Your task to perform on an android device: Go to privacy settings Image 0: 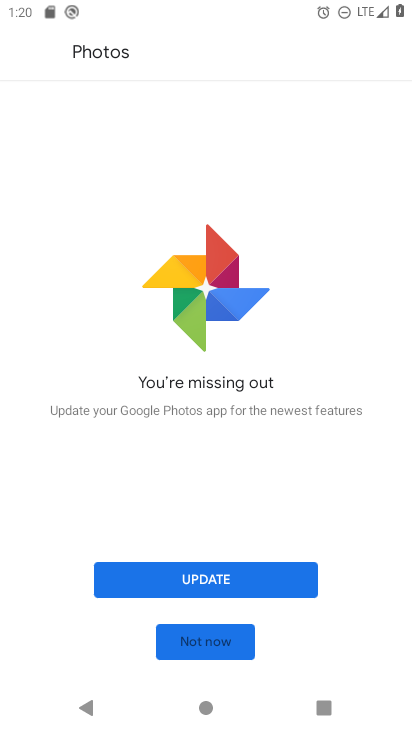
Step 0: press home button
Your task to perform on an android device: Go to privacy settings Image 1: 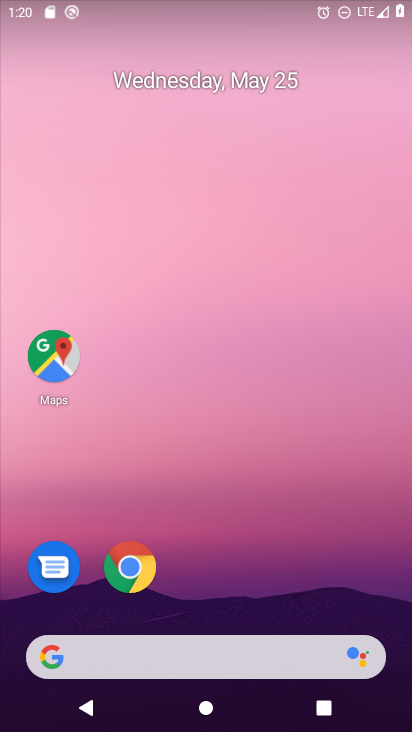
Step 1: click (130, 559)
Your task to perform on an android device: Go to privacy settings Image 2: 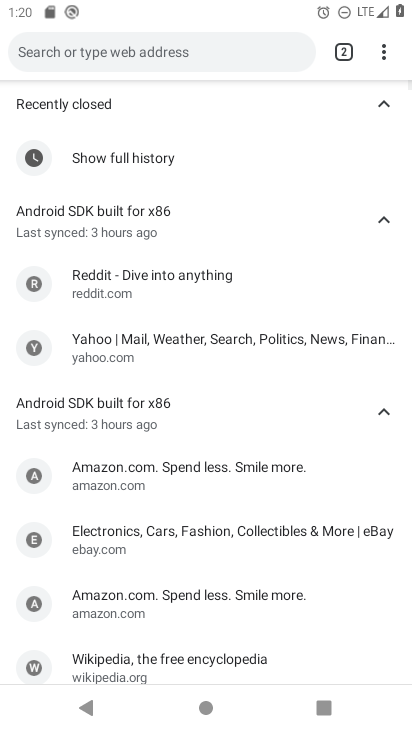
Step 2: click (380, 45)
Your task to perform on an android device: Go to privacy settings Image 3: 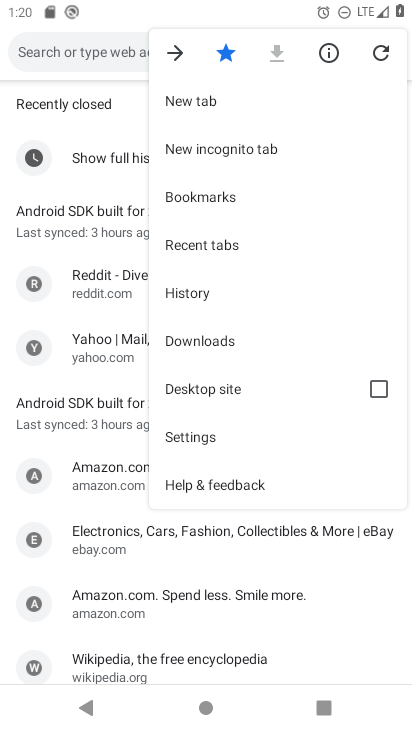
Step 3: click (192, 432)
Your task to perform on an android device: Go to privacy settings Image 4: 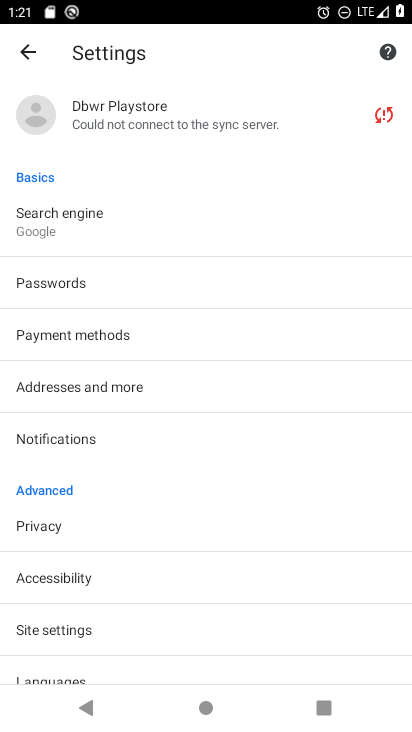
Step 4: click (50, 529)
Your task to perform on an android device: Go to privacy settings Image 5: 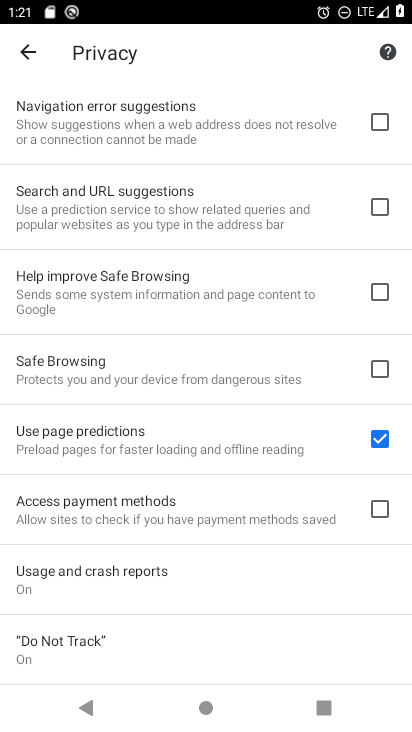
Step 5: task complete